Your task to perform on an android device: delete the emails in spam in the gmail app Image 0: 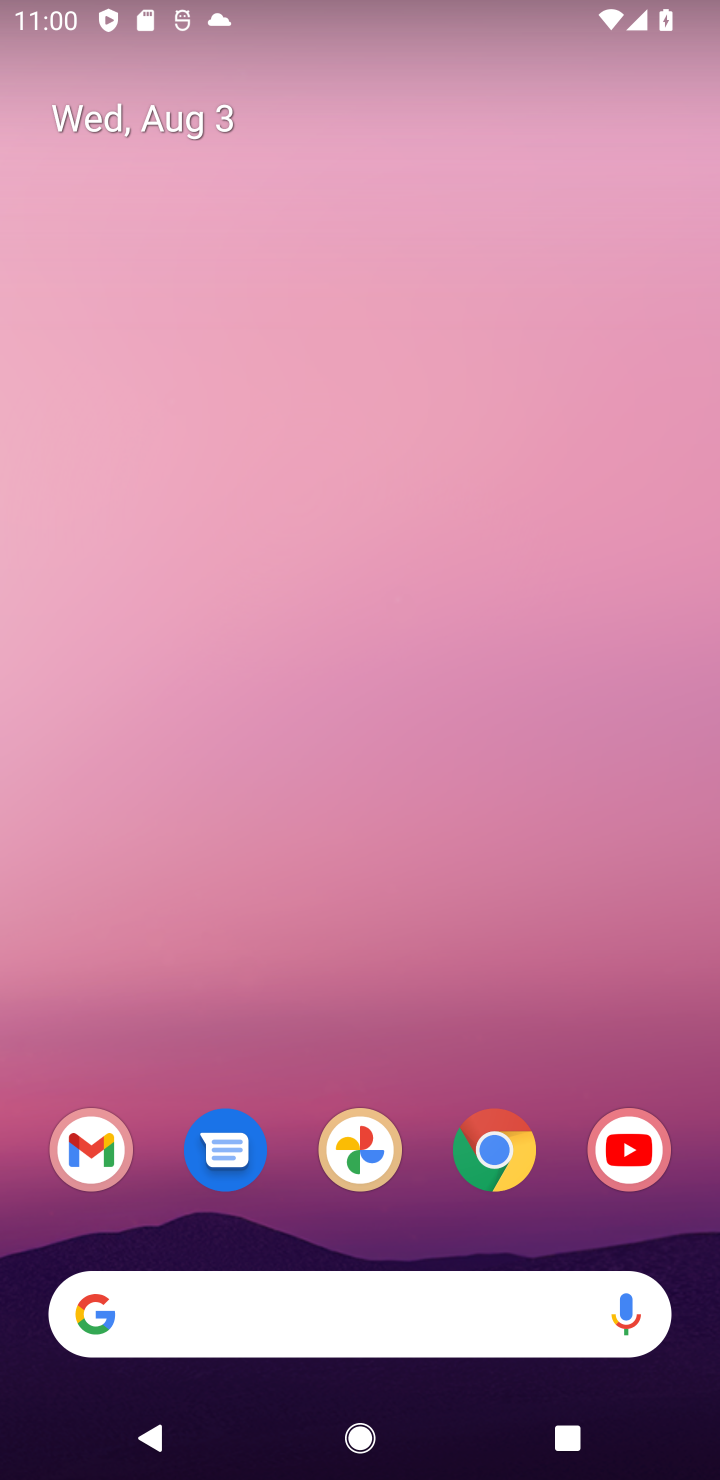
Step 0: press home button
Your task to perform on an android device: delete the emails in spam in the gmail app Image 1: 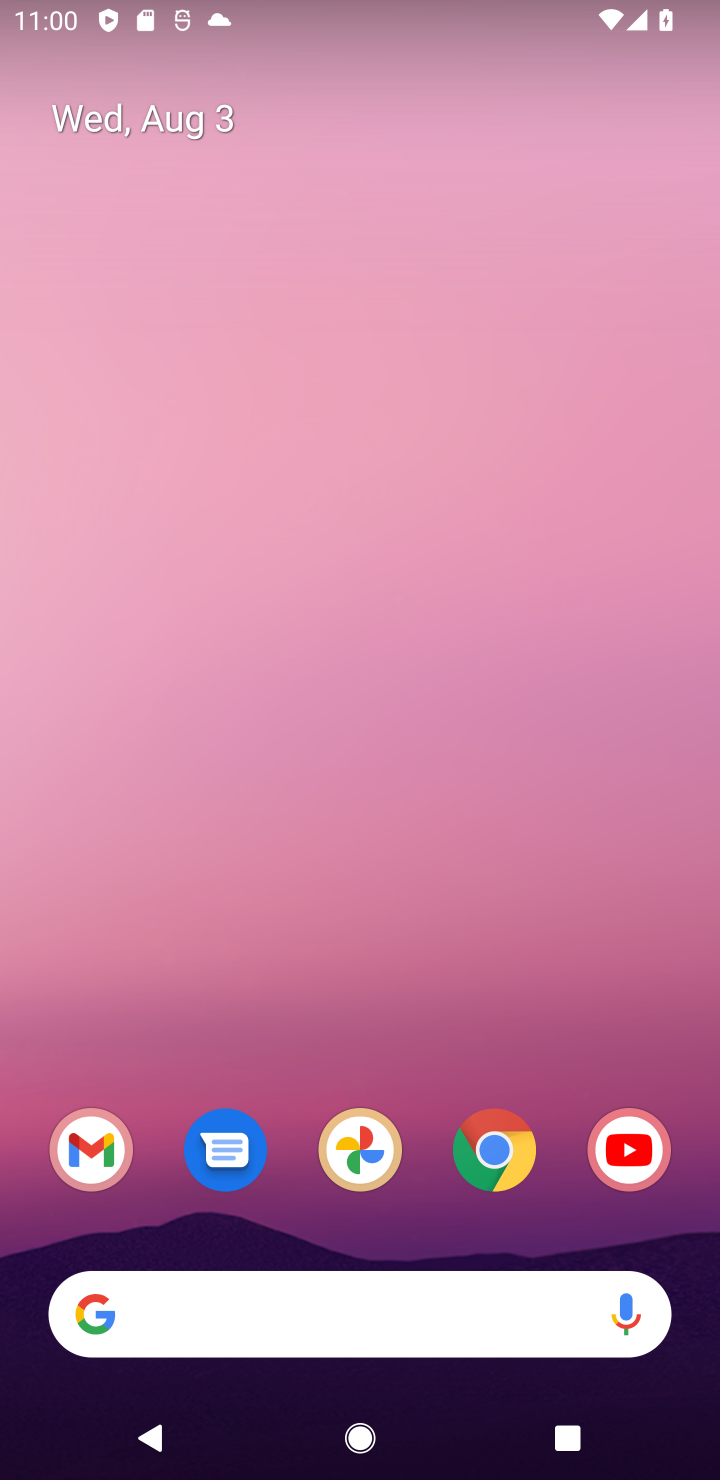
Step 1: drag from (564, 1042) to (579, 375)
Your task to perform on an android device: delete the emails in spam in the gmail app Image 2: 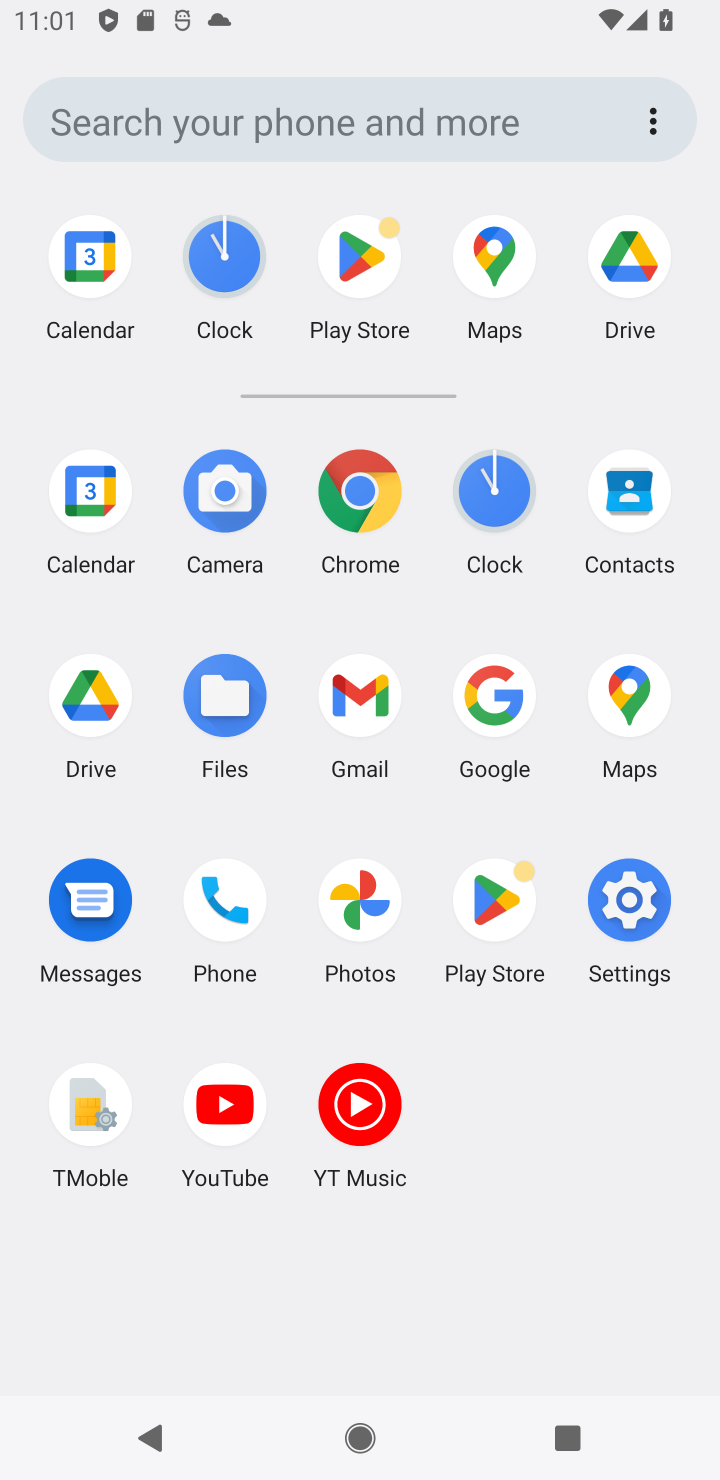
Step 2: click (362, 698)
Your task to perform on an android device: delete the emails in spam in the gmail app Image 3: 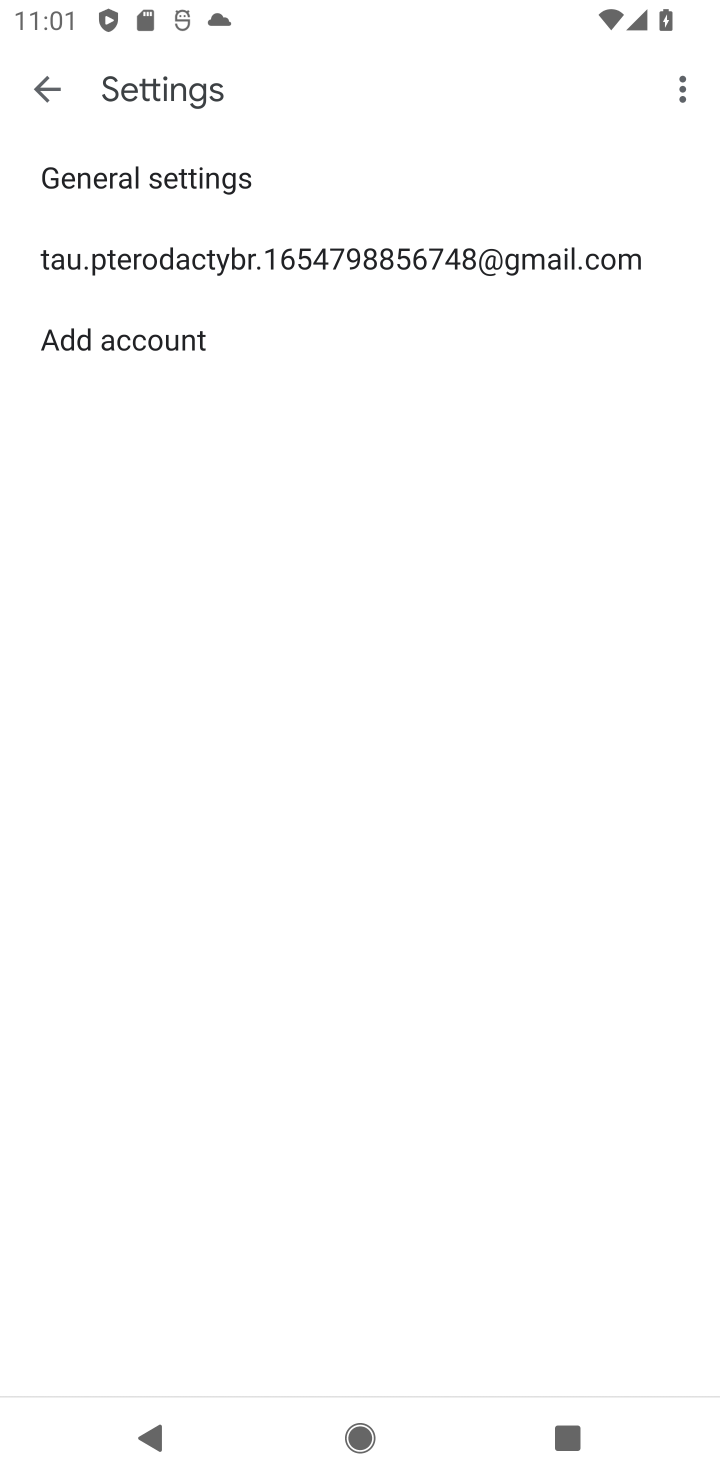
Step 3: press back button
Your task to perform on an android device: delete the emails in spam in the gmail app Image 4: 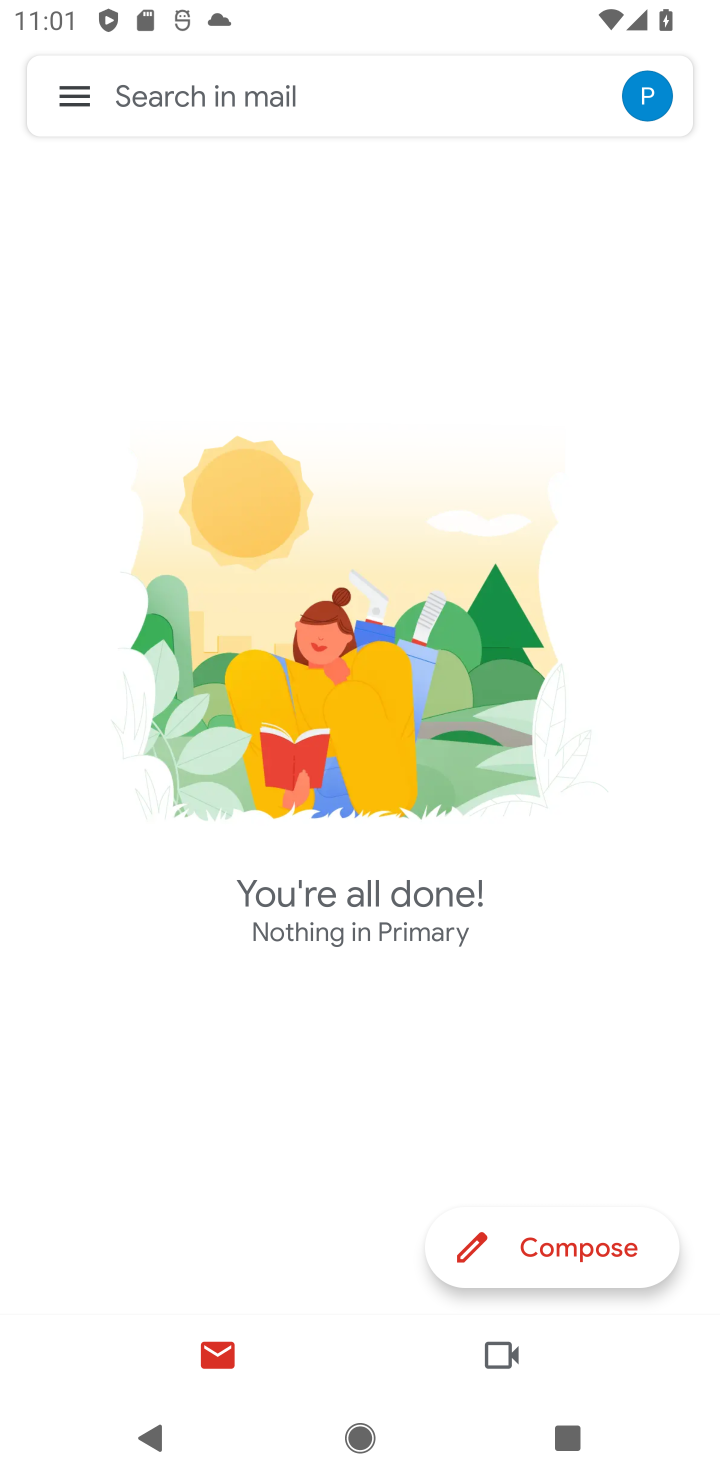
Step 4: click (71, 84)
Your task to perform on an android device: delete the emails in spam in the gmail app Image 5: 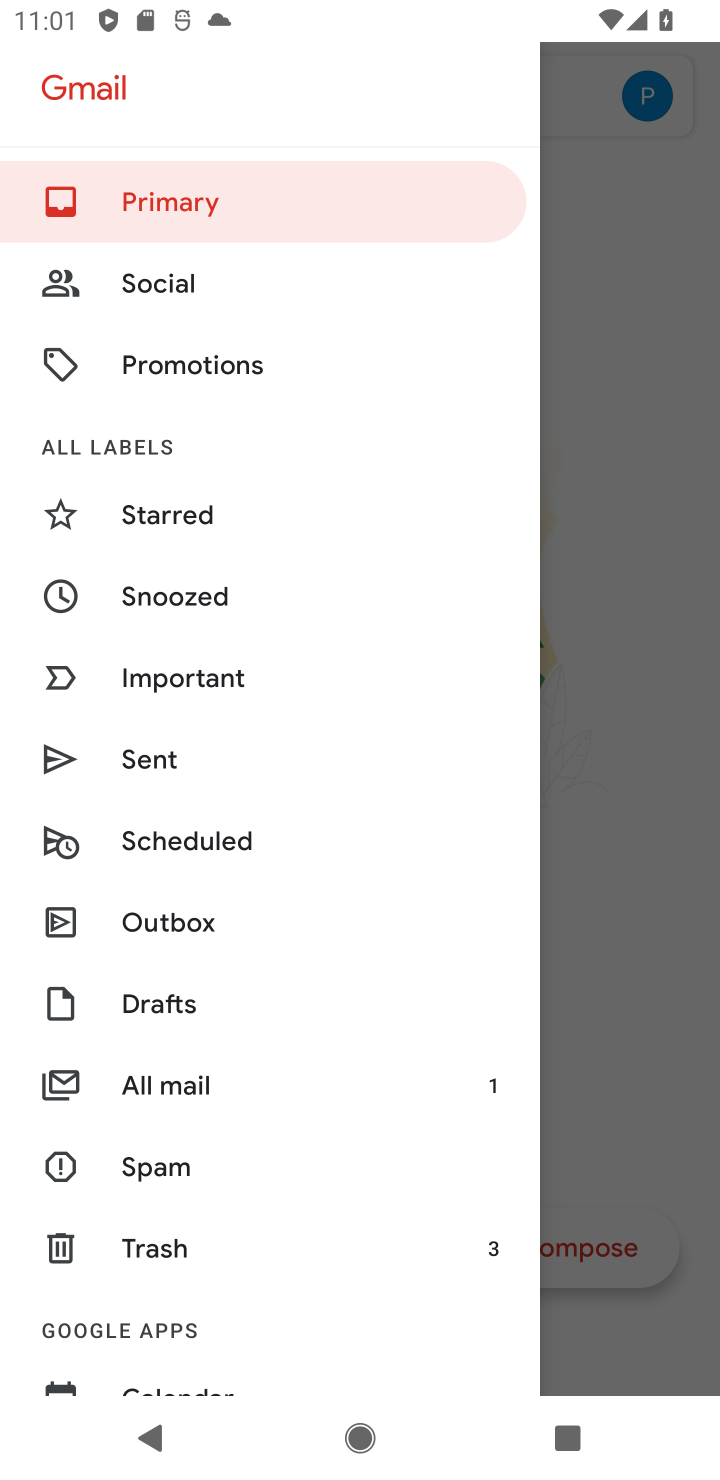
Step 5: drag from (368, 895) to (366, 606)
Your task to perform on an android device: delete the emails in spam in the gmail app Image 6: 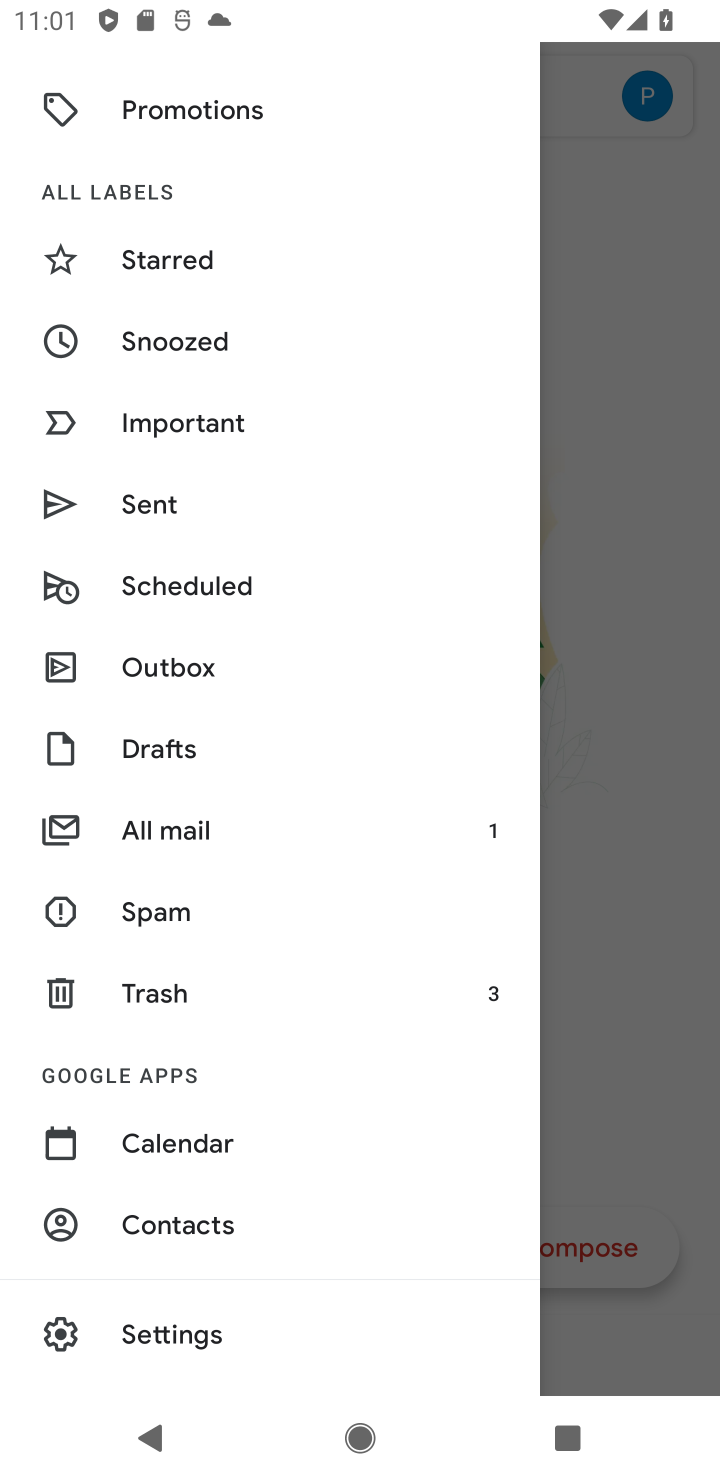
Step 6: drag from (374, 1000) to (376, 713)
Your task to perform on an android device: delete the emails in spam in the gmail app Image 7: 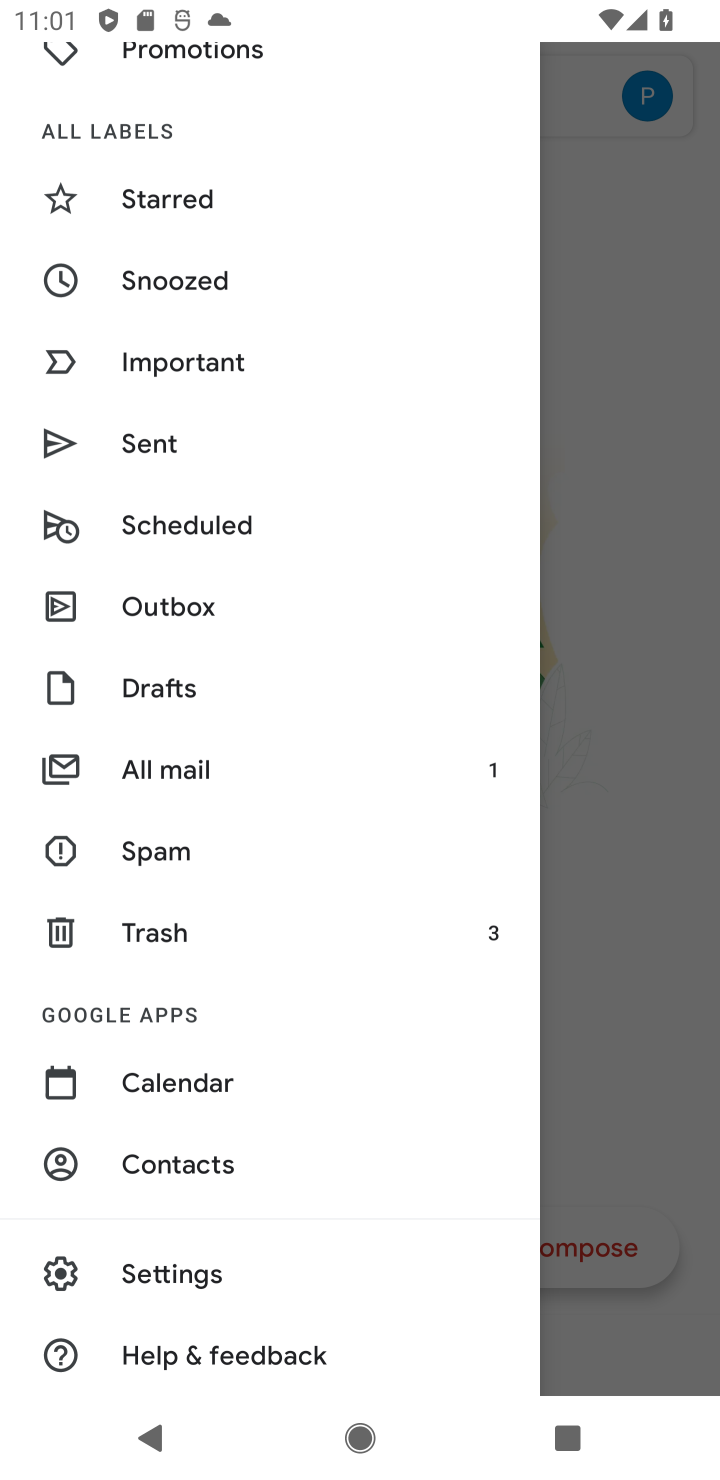
Step 7: click (281, 847)
Your task to perform on an android device: delete the emails in spam in the gmail app Image 8: 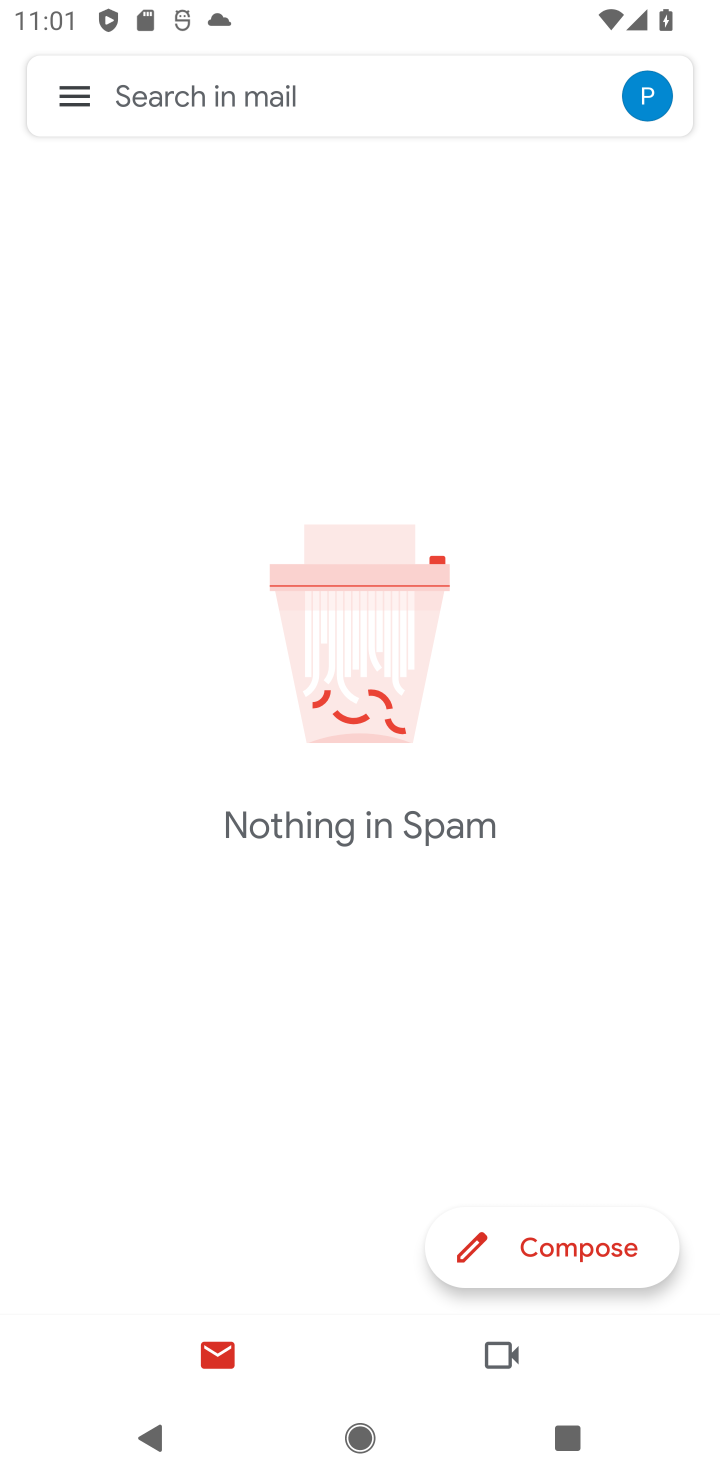
Step 8: task complete